Your task to perform on an android device: Go to settings Image 0: 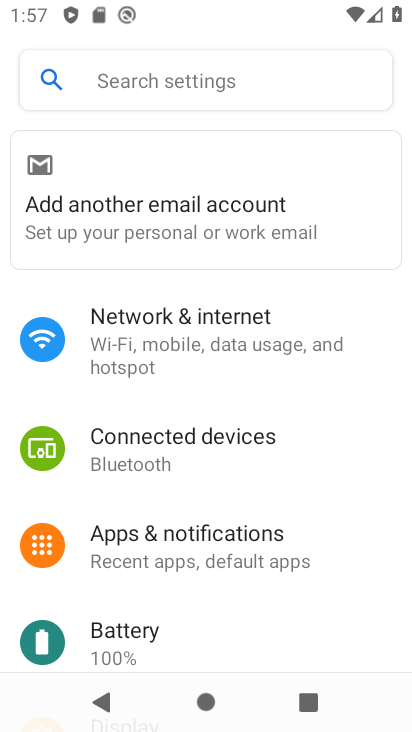
Step 0: drag from (375, 607) to (411, 156)
Your task to perform on an android device: Go to settings Image 1: 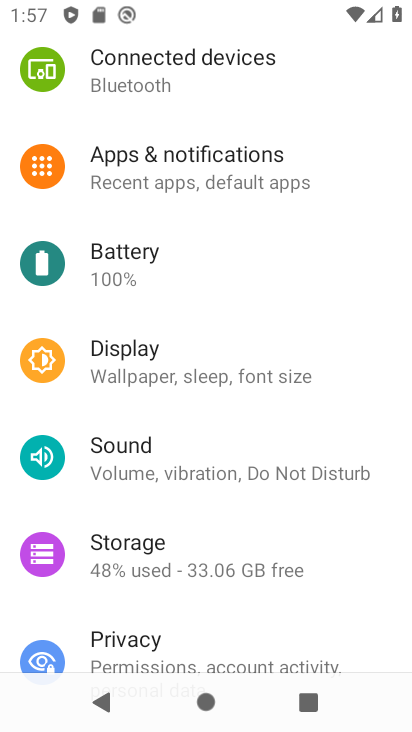
Step 1: task complete